Your task to perform on an android device: clear all cookies in the chrome app Image 0: 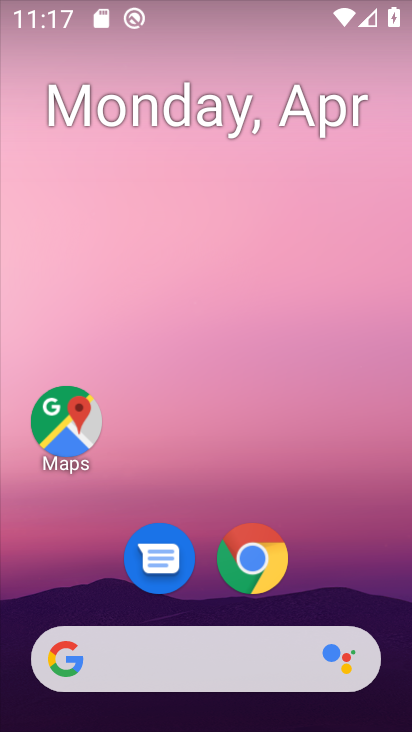
Step 0: click (256, 555)
Your task to perform on an android device: clear all cookies in the chrome app Image 1: 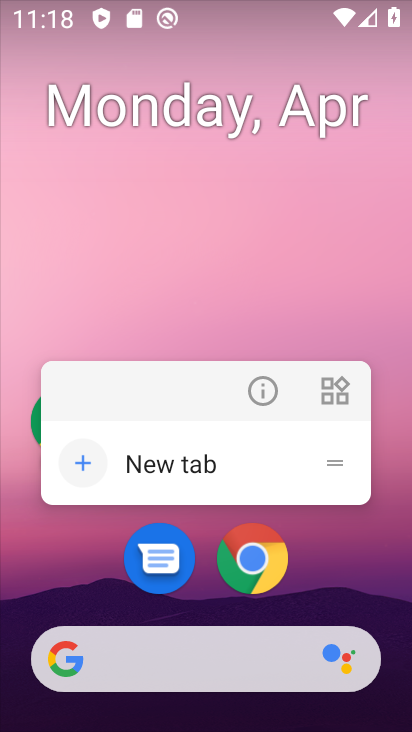
Step 1: click (251, 560)
Your task to perform on an android device: clear all cookies in the chrome app Image 2: 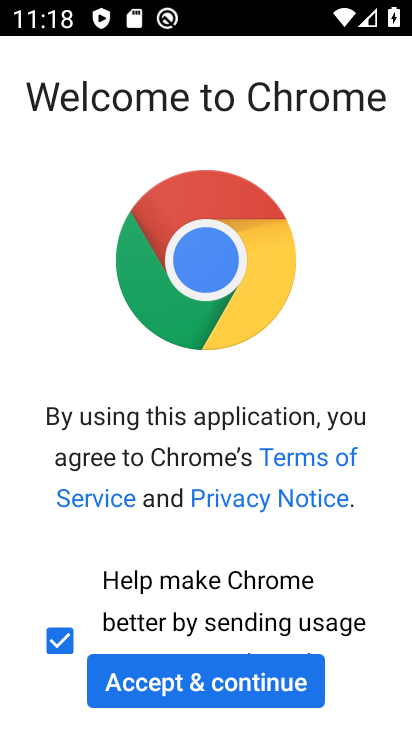
Step 2: click (223, 682)
Your task to perform on an android device: clear all cookies in the chrome app Image 3: 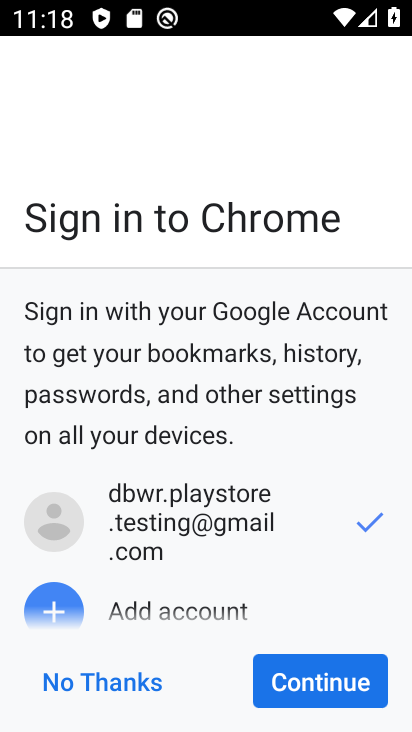
Step 3: click (347, 675)
Your task to perform on an android device: clear all cookies in the chrome app Image 4: 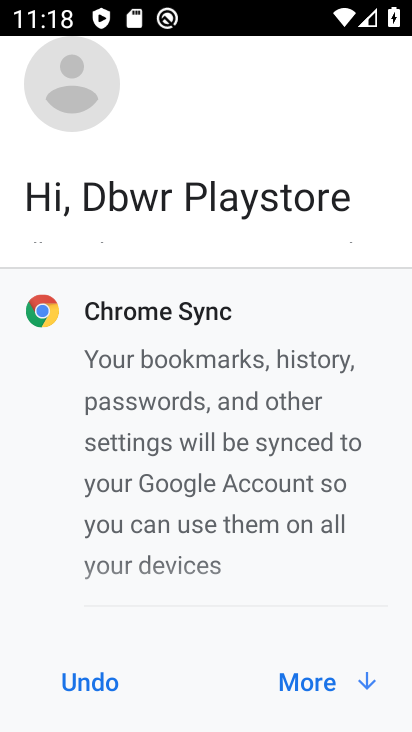
Step 4: click (335, 688)
Your task to perform on an android device: clear all cookies in the chrome app Image 5: 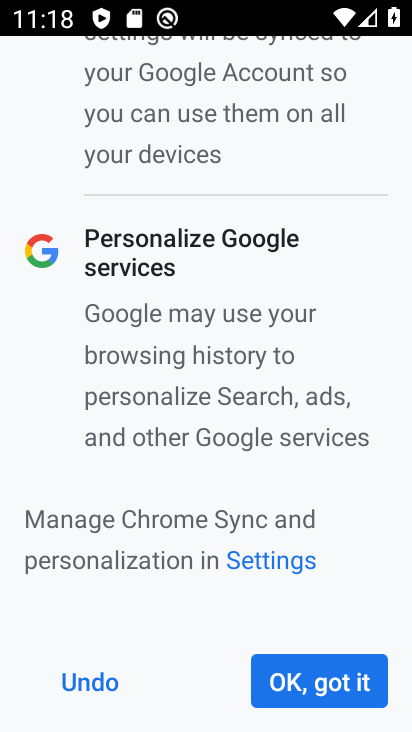
Step 5: click (335, 684)
Your task to perform on an android device: clear all cookies in the chrome app Image 6: 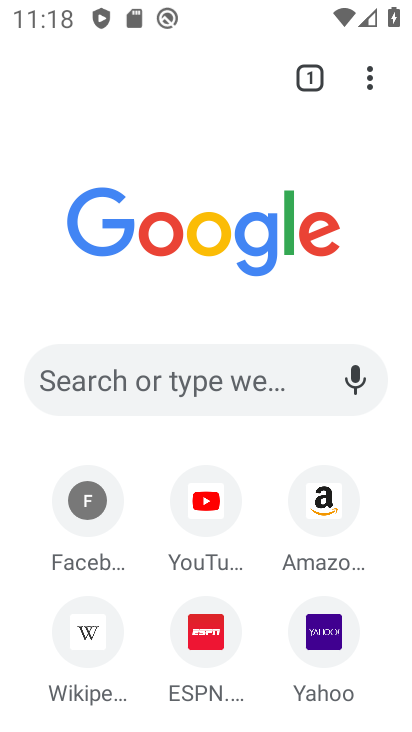
Step 6: click (377, 70)
Your task to perform on an android device: clear all cookies in the chrome app Image 7: 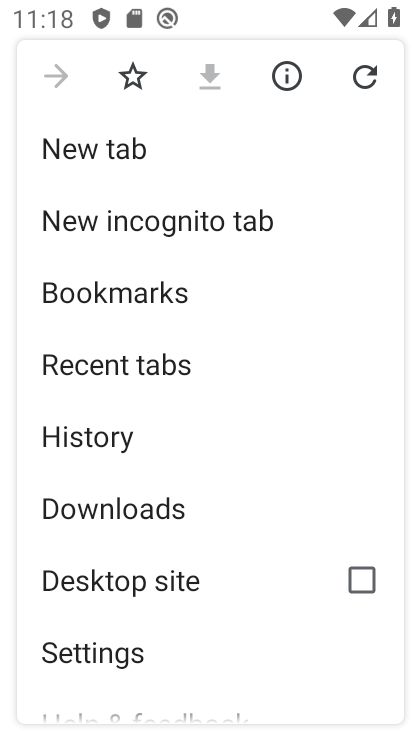
Step 7: click (108, 439)
Your task to perform on an android device: clear all cookies in the chrome app Image 8: 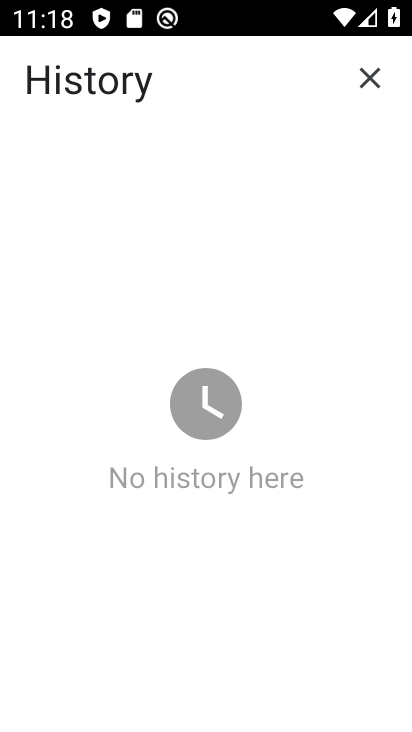
Step 8: click (375, 82)
Your task to perform on an android device: clear all cookies in the chrome app Image 9: 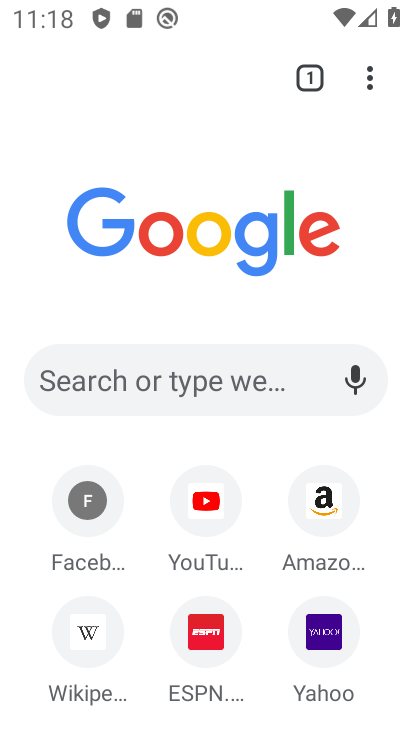
Step 9: click (363, 77)
Your task to perform on an android device: clear all cookies in the chrome app Image 10: 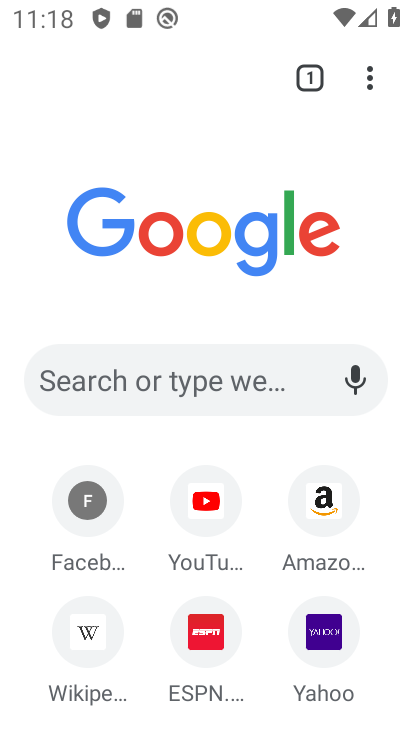
Step 10: click (364, 76)
Your task to perform on an android device: clear all cookies in the chrome app Image 11: 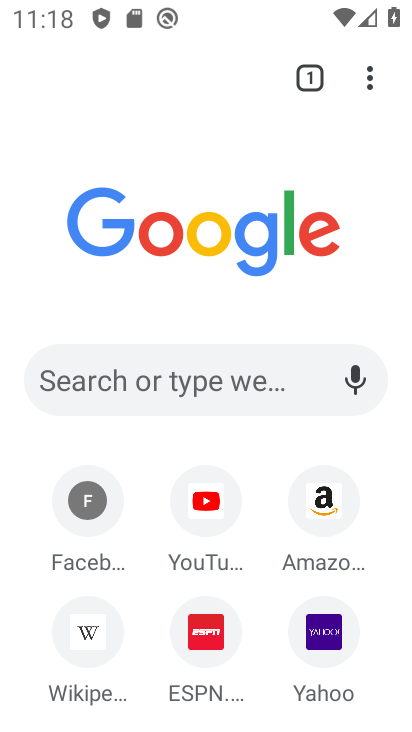
Step 11: click (365, 77)
Your task to perform on an android device: clear all cookies in the chrome app Image 12: 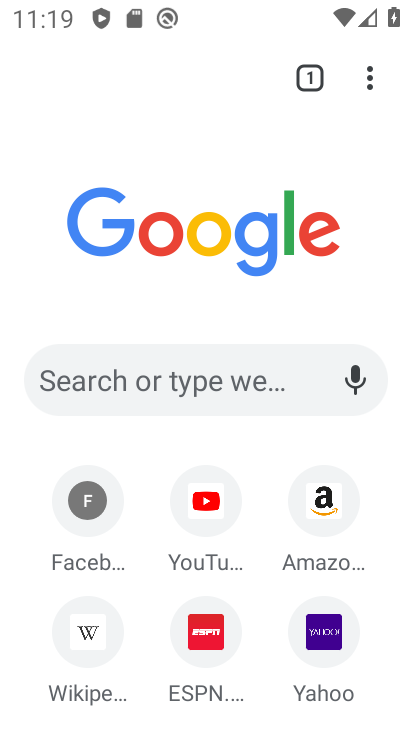
Step 12: click (369, 83)
Your task to perform on an android device: clear all cookies in the chrome app Image 13: 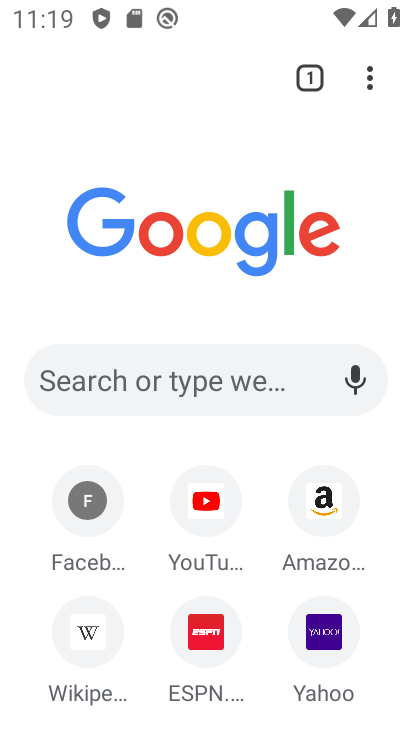
Step 13: click (365, 71)
Your task to perform on an android device: clear all cookies in the chrome app Image 14: 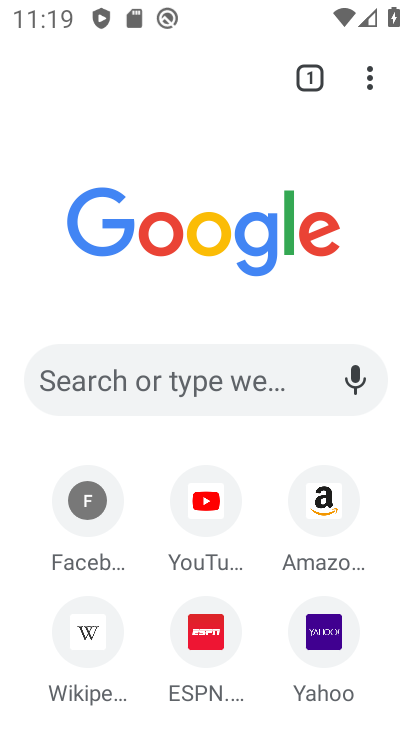
Step 14: task complete